Your task to perform on an android device: star an email in the gmail app Image 0: 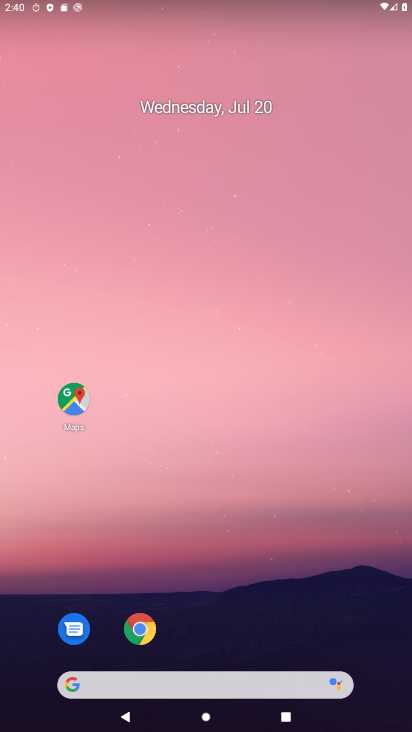
Step 0: drag from (220, 650) to (260, 24)
Your task to perform on an android device: star an email in the gmail app Image 1: 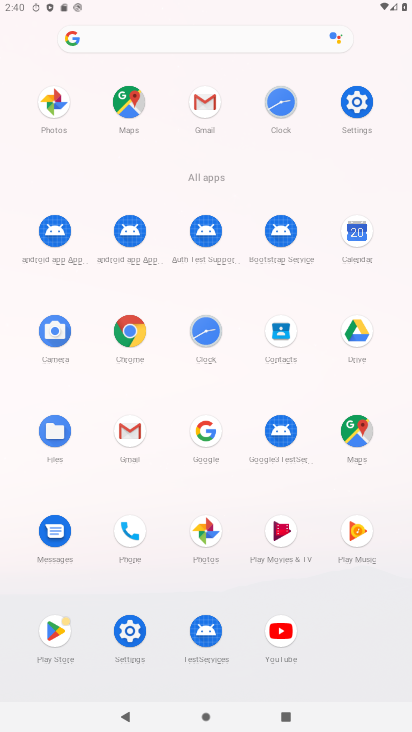
Step 1: click (203, 94)
Your task to perform on an android device: star an email in the gmail app Image 2: 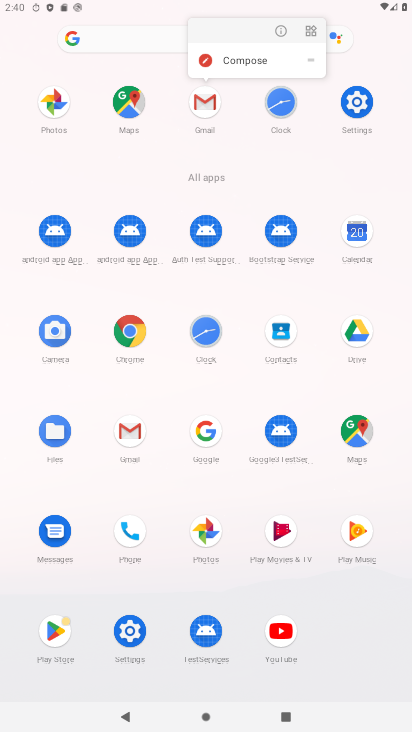
Step 2: click (203, 100)
Your task to perform on an android device: star an email in the gmail app Image 3: 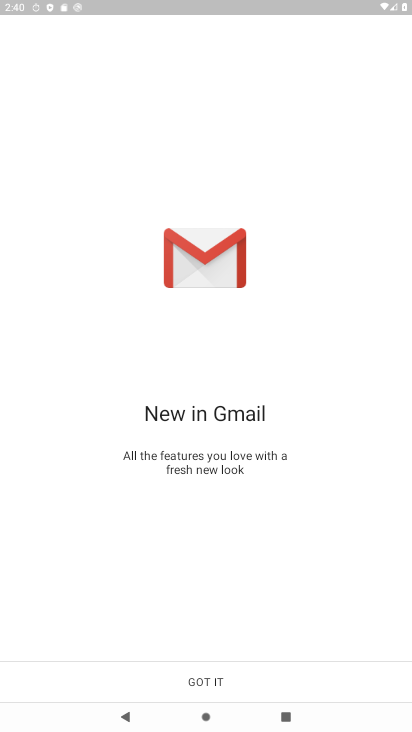
Step 3: click (209, 677)
Your task to perform on an android device: star an email in the gmail app Image 4: 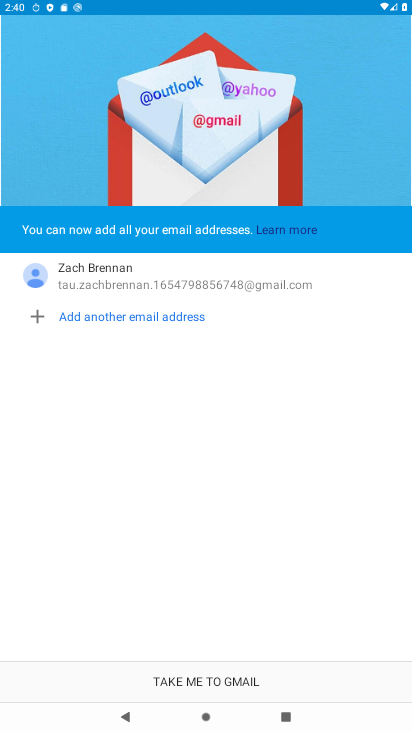
Step 4: click (204, 680)
Your task to perform on an android device: star an email in the gmail app Image 5: 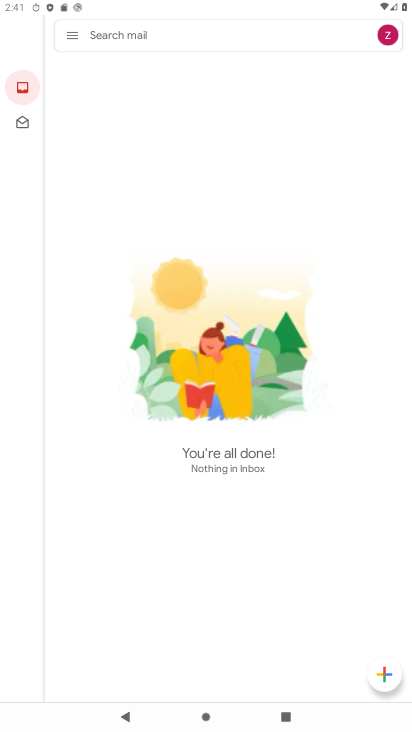
Step 5: task complete